Your task to perform on an android device: change your default location settings in chrome Image 0: 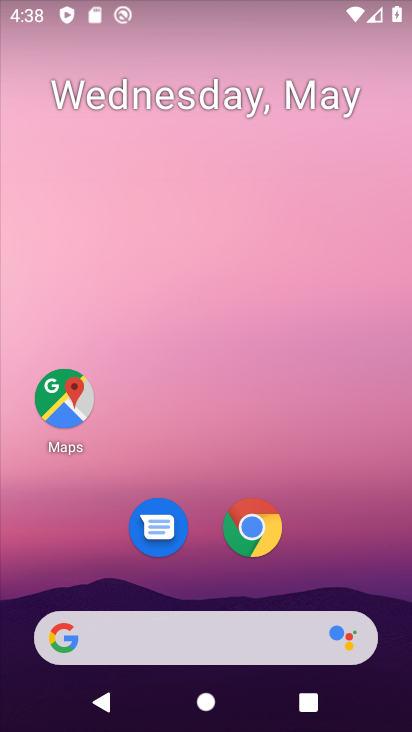
Step 0: click (305, 26)
Your task to perform on an android device: change your default location settings in chrome Image 1: 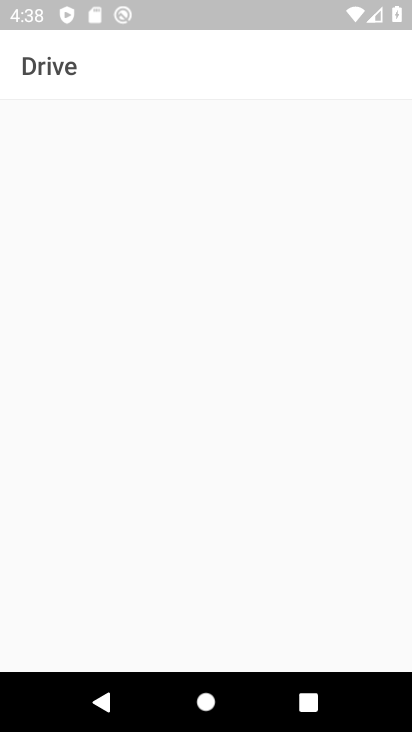
Step 1: press home button
Your task to perform on an android device: change your default location settings in chrome Image 2: 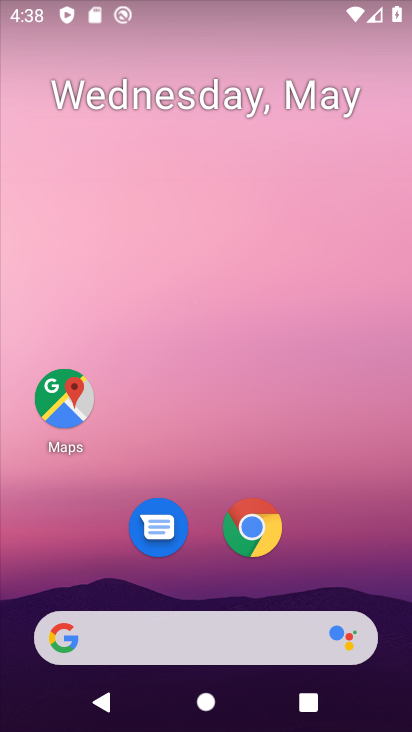
Step 2: drag from (206, 596) to (253, 24)
Your task to perform on an android device: change your default location settings in chrome Image 3: 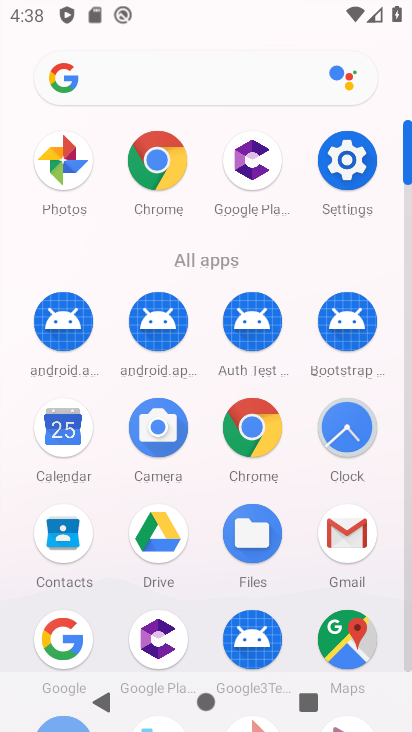
Step 3: click (158, 182)
Your task to perform on an android device: change your default location settings in chrome Image 4: 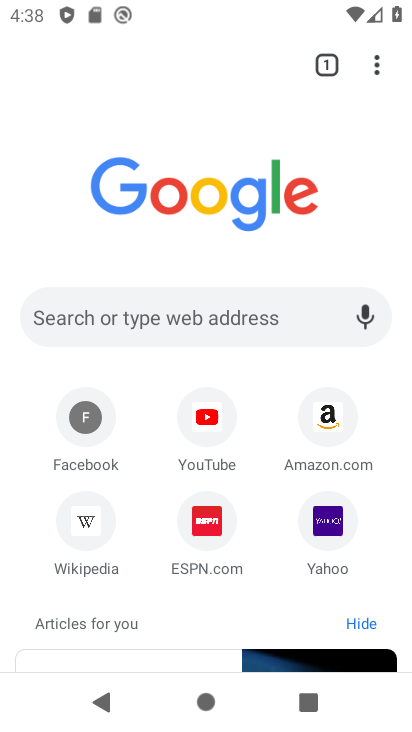
Step 4: click (375, 74)
Your task to perform on an android device: change your default location settings in chrome Image 5: 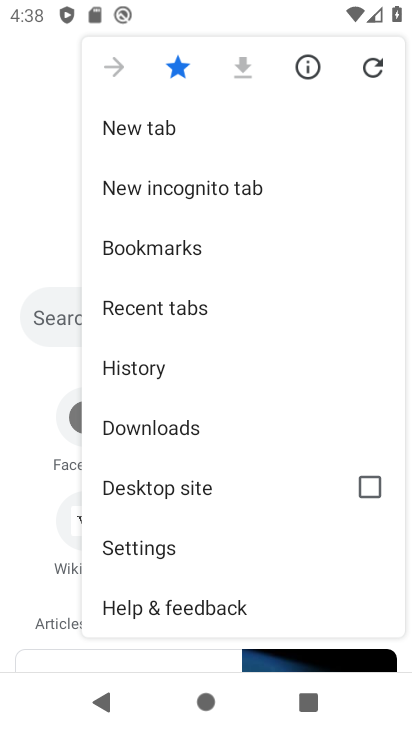
Step 5: click (135, 557)
Your task to perform on an android device: change your default location settings in chrome Image 6: 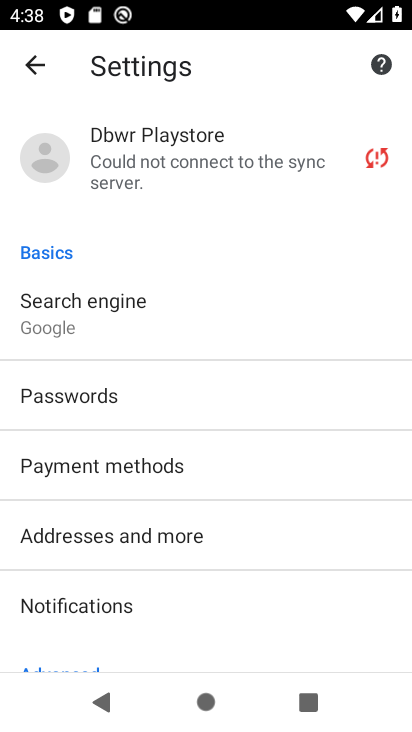
Step 6: drag from (145, 566) to (206, 98)
Your task to perform on an android device: change your default location settings in chrome Image 7: 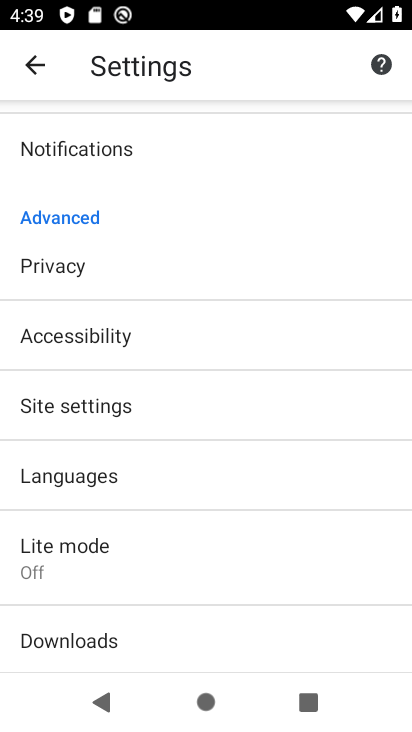
Step 7: click (97, 411)
Your task to perform on an android device: change your default location settings in chrome Image 8: 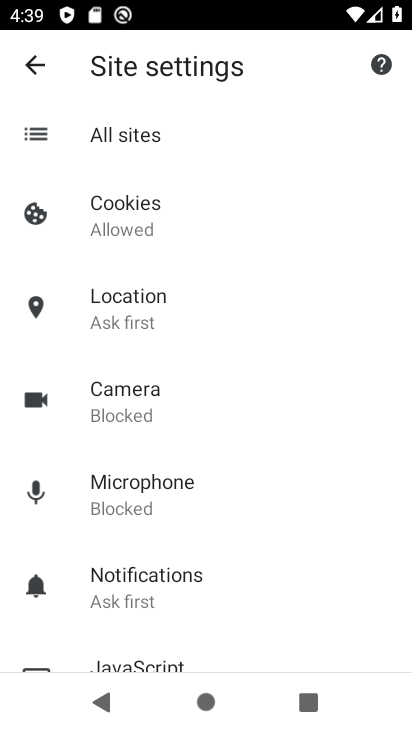
Step 8: drag from (189, 628) to (248, 261)
Your task to perform on an android device: change your default location settings in chrome Image 9: 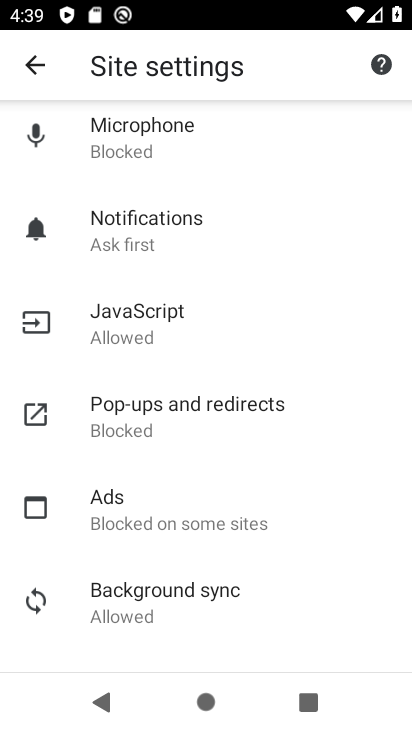
Step 9: drag from (192, 263) to (189, 559)
Your task to perform on an android device: change your default location settings in chrome Image 10: 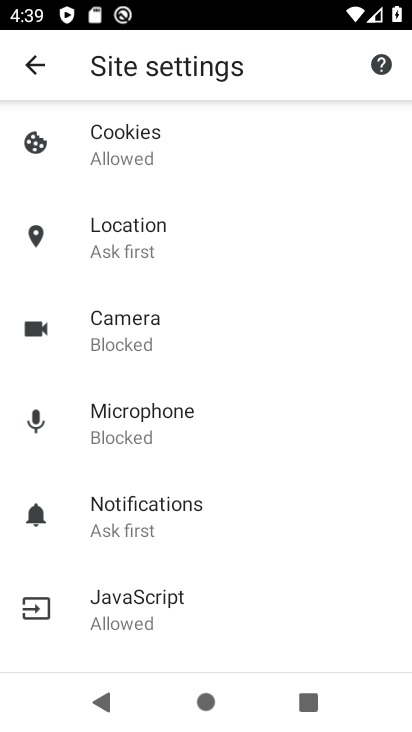
Step 10: drag from (203, 280) to (200, 494)
Your task to perform on an android device: change your default location settings in chrome Image 11: 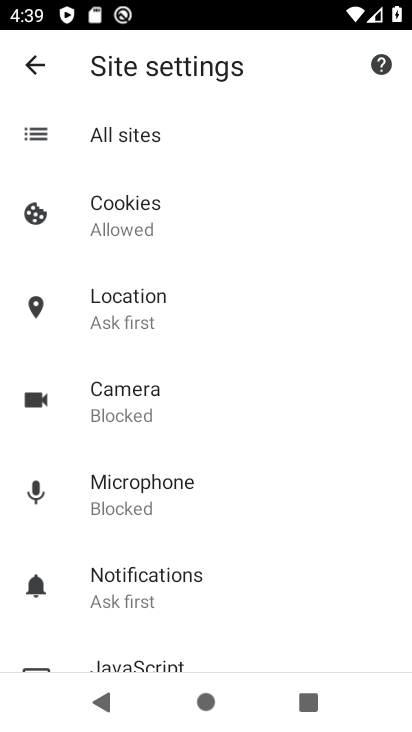
Step 11: drag from (202, 575) to (198, 291)
Your task to perform on an android device: change your default location settings in chrome Image 12: 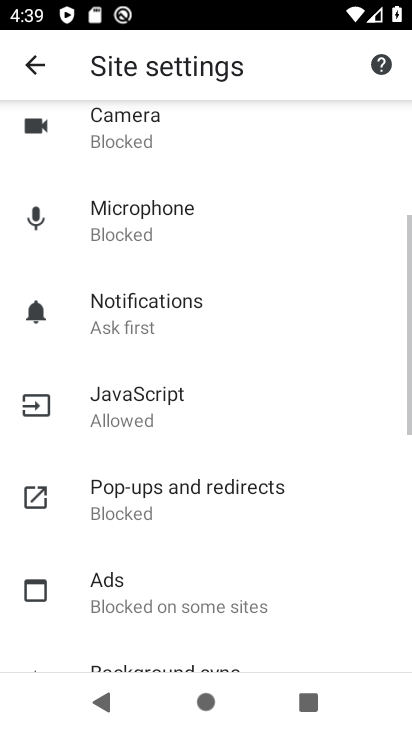
Step 12: drag from (155, 241) to (141, 586)
Your task to perform on an android device: change your default location settings in chrome Image 13: 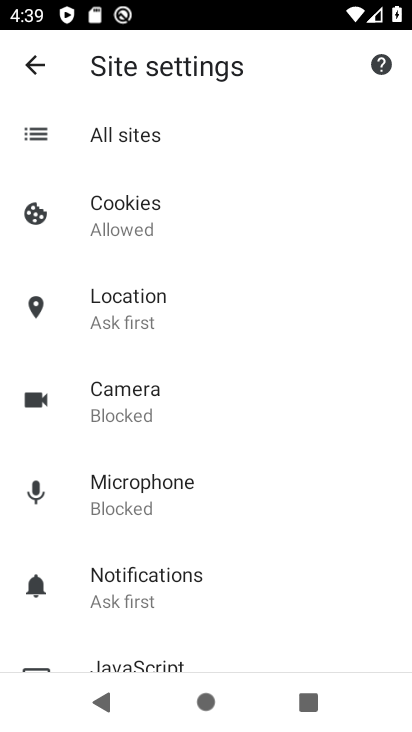
Step 13: click (129, 324)
Your task to perform on an android device: change your default location settings in chrome Image 14: 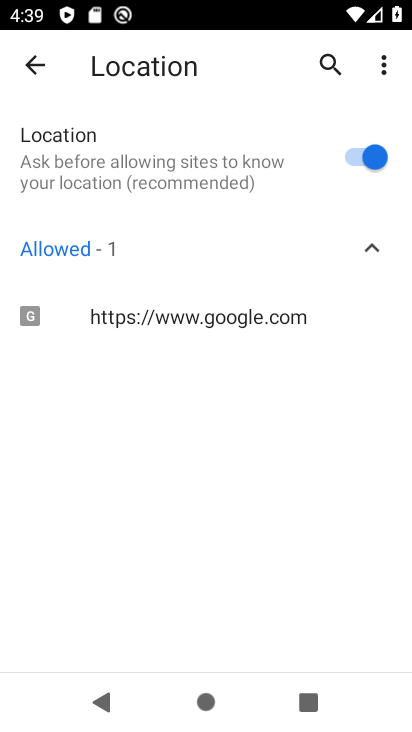
Step 14: click (359, 174)
Your task to perform on an android device: change your default location settings in chrome Image 15: 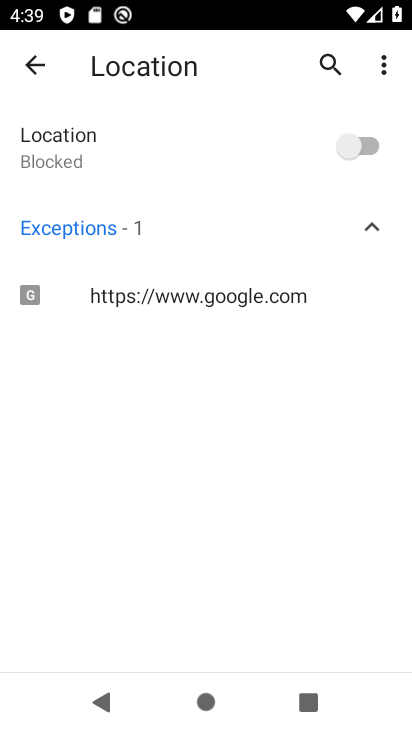
Step 15: task complete